Your task to perform on an android device: What's on my calendar today? Image 0: 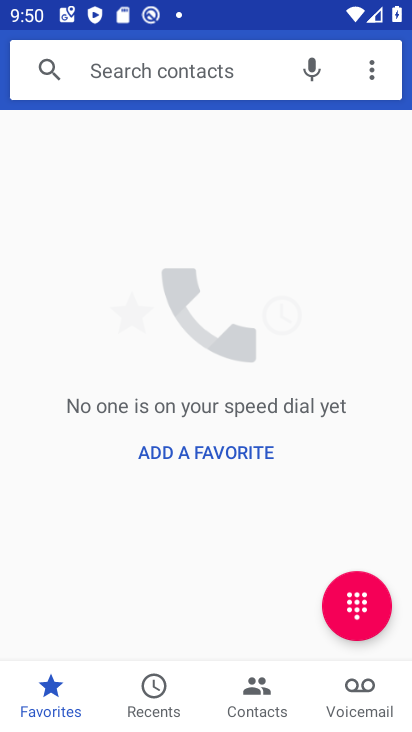
Step 0: press home button
Your task to perform on an android device: What's on my calendar today? Image 1: 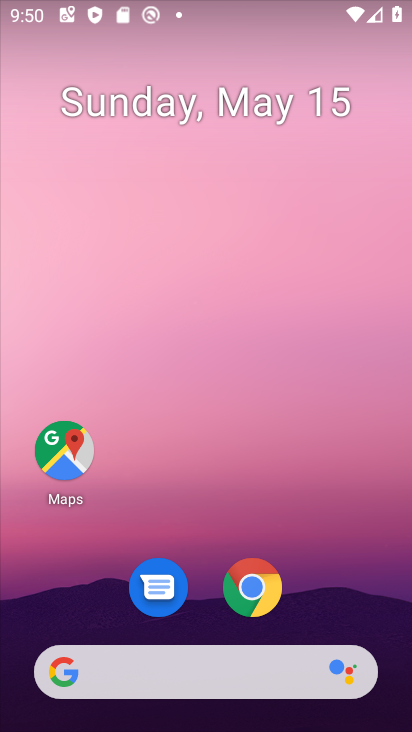
Step 1: drag from (396, 637) to (263, 126)
Your task to perform on an android device: What's on my calendar today? Image 2: 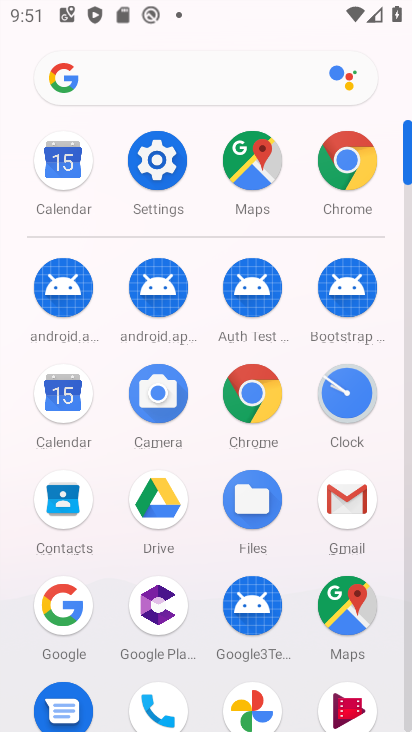
Step 2: click (58, 402)
Your task to perform on an android device: What's on my calendar today? Image 3: 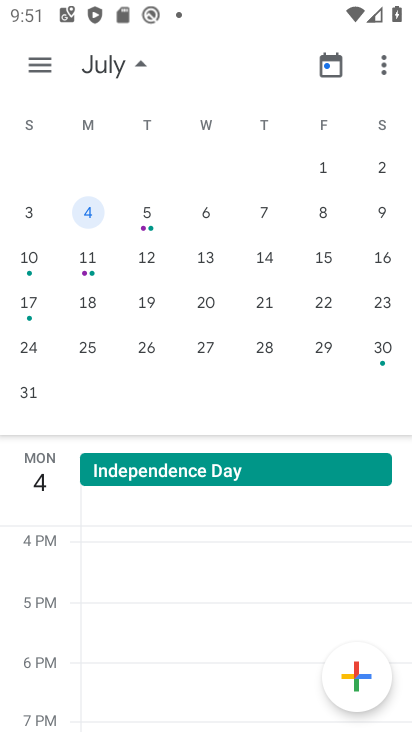
Step 3: drag from (116, 307) to (376, 309)
Your task to perform on an android device: What's on my calendar today? Image 4: 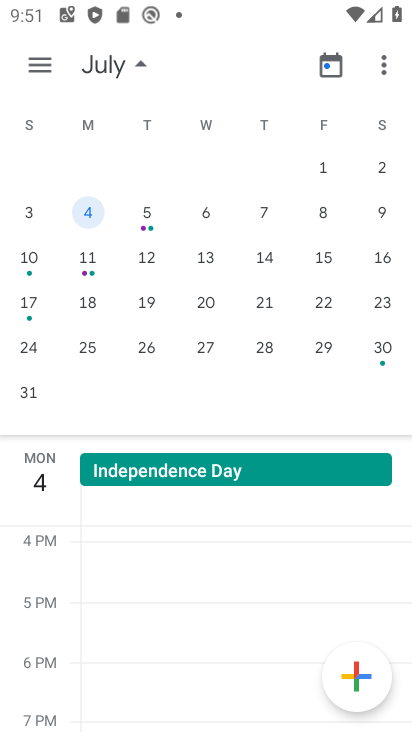
Step 4: drag from (74, 290) to (349, 276)
Your task to perform on an android device: What's on my calendar today? Image 5: 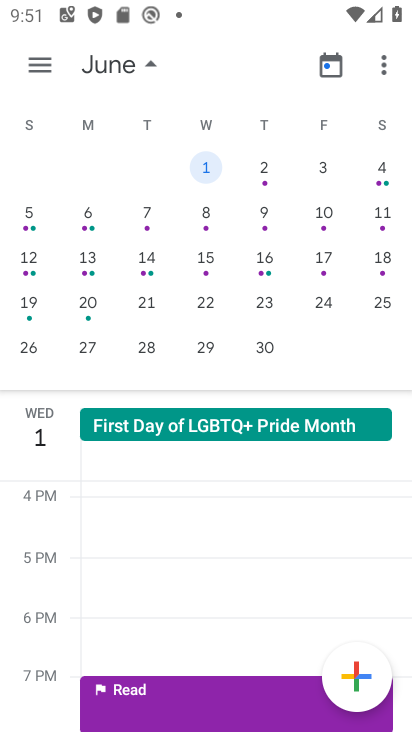
Step 5: drag from (53, 275) to (352, 245)
Your task to perform on an android device: What's on my calendar today? Image 6: 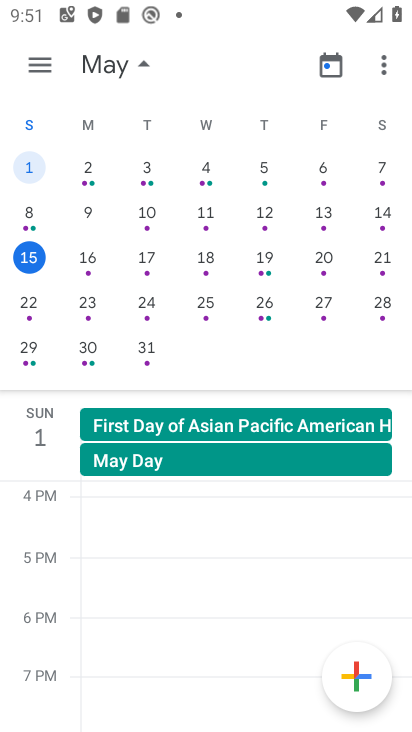
Step 6: click (87, 259)
Your task to perform on an android device: What's on my calendar today? Image 7: 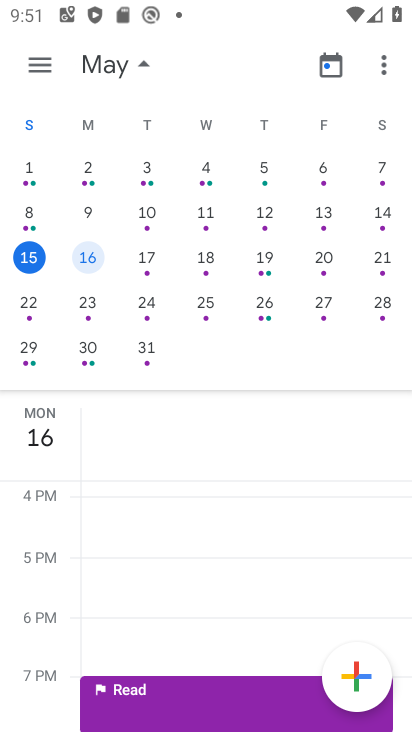
Step 7: task complete